Your task to perform on an android device: Open internet settings Image 0: 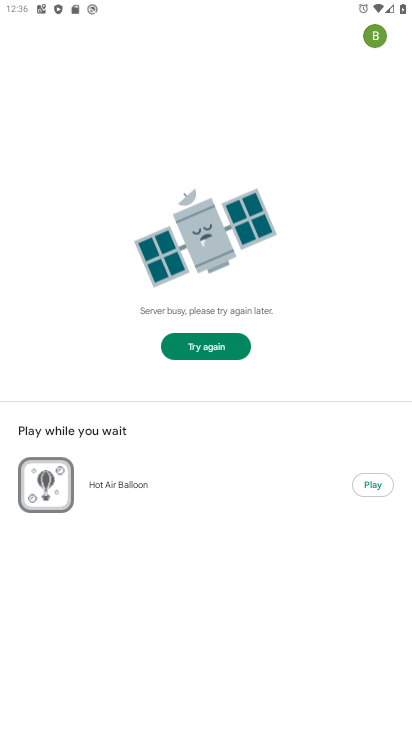
Step 0: press home button
Your task to perform on an android device: Open internet settings Image 1: 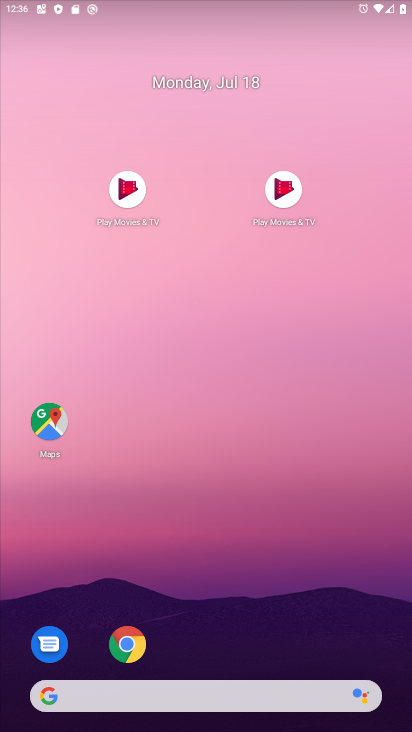
Step 1: drag from (289, 667) to (244, 431)
Your task to perform on an android device: Open internet settings Image 2: 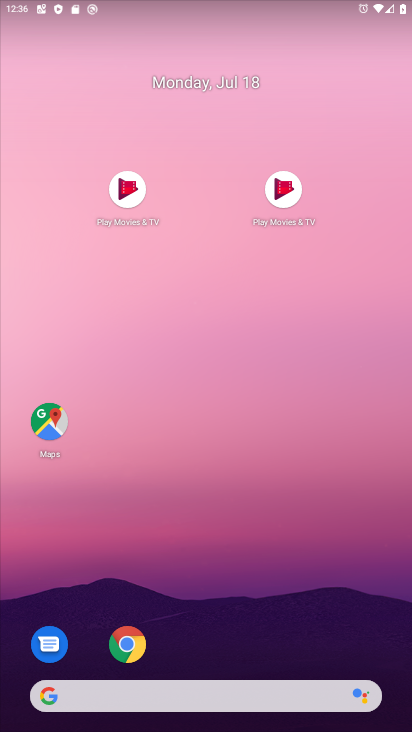
Step 2: drag from (311, 586) to (207, 36)
Your task to perform on an android device: Open internet settings Image 3: 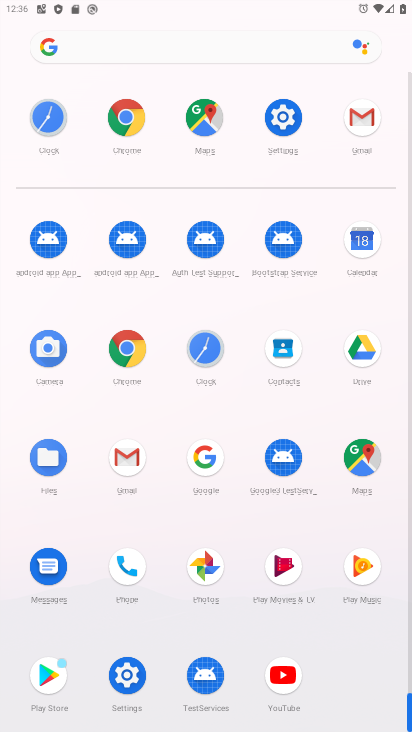
Step 3: click (297, 115)
Your task to perform on an android device: Open internet settings Image 4: 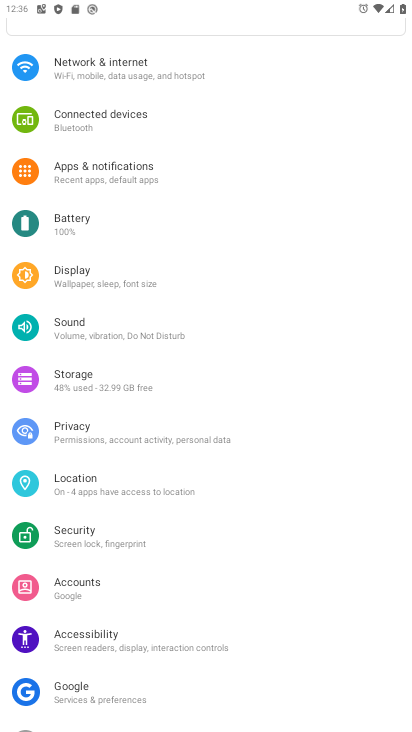
Step 4: click (128, 74)
Your task to perform on an android device: Open internet settings Image 5: 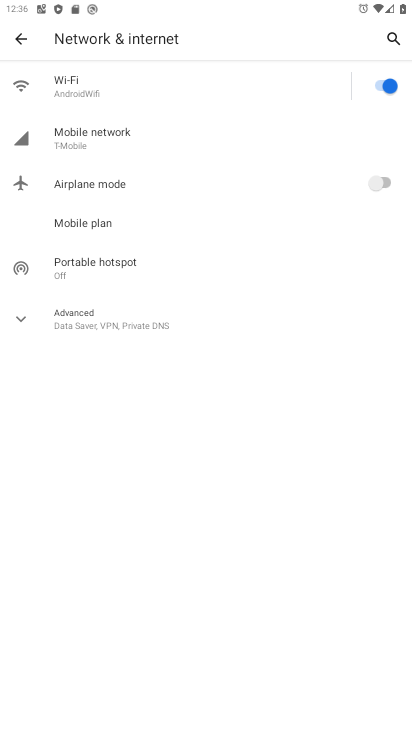
Step 5: click (133, 135)
Your task to perform on an android device: Open internet settings Image 6: 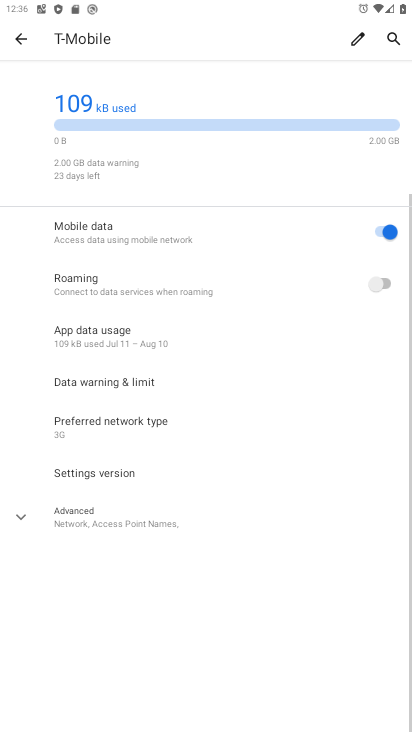
Step 6: click (62, 518)
Your task to perform on an android device: Open internet settings Image 7: 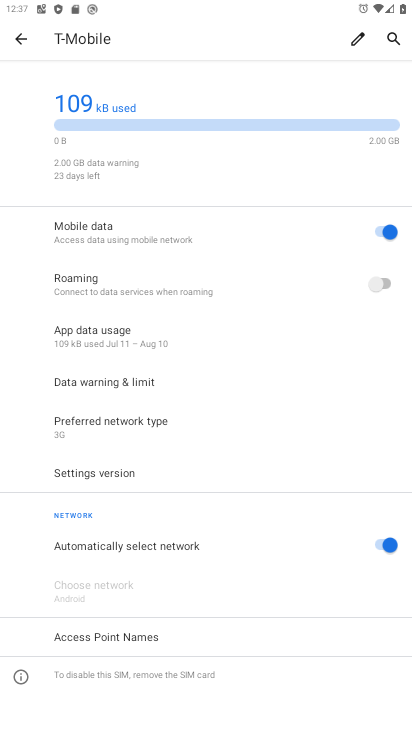
Step 7: task complete